Your task to perform on an android device: move an email to a new category in the gmail app Image 0: 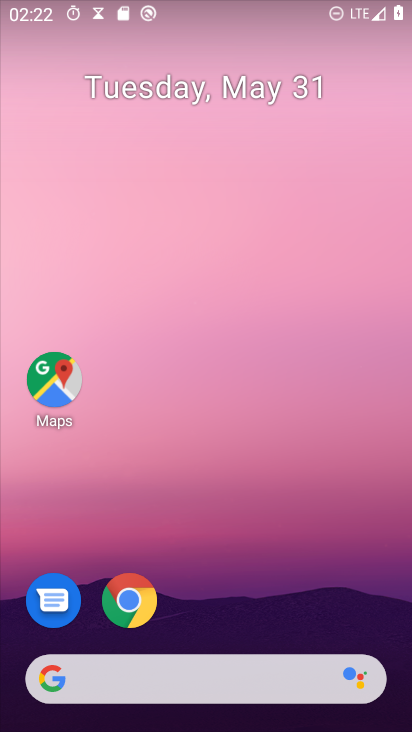
Step 0: drag from (253, 713) to (256, 193)
Your task to perform on an android device: move an email to a new category in the gmail app Image 1: 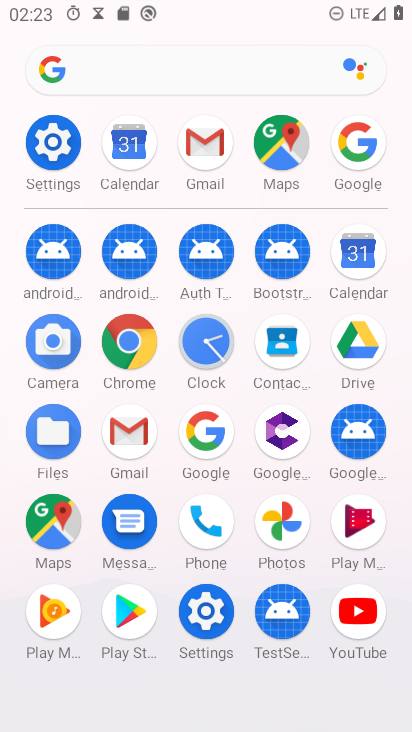
Step 1: click (126, 431)
Your task to perform on an android device: move an email to a new category in the gmail app Image 2: 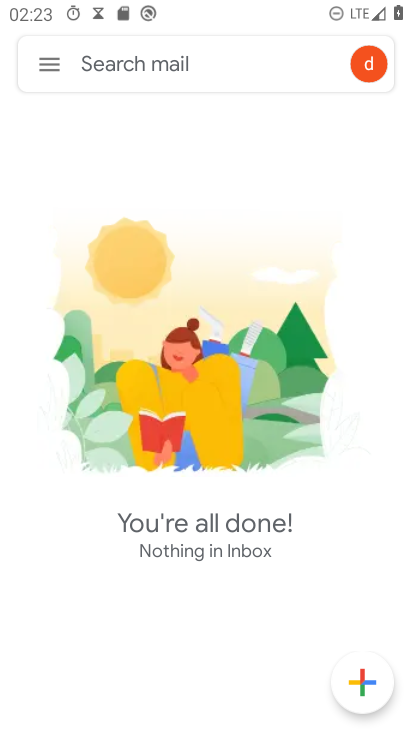
Step 2: task complete